Your task to perform on an android device: turn off airplane mode Image 0: 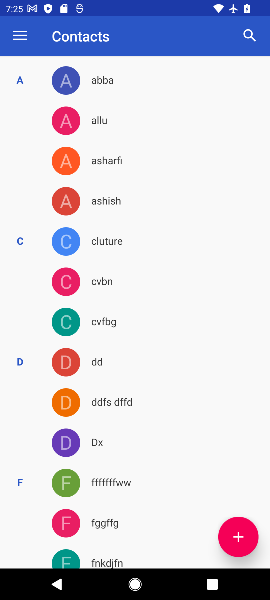
Step 0: press home button
Your task to perform on an android device: turn off airplane mode Image 1: 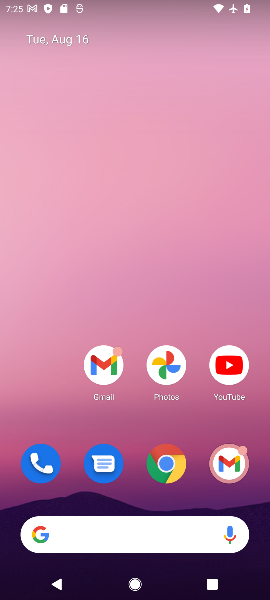
Step 1: drag from (104, 528) to (133, 19)
Your task to perform on an android device: turn off airplane mode Image 2: 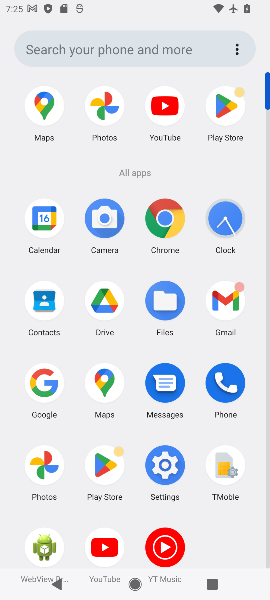
Step 2: click (158, 458)
Your task to perform on an android device: turn off airplane mode Image 3: 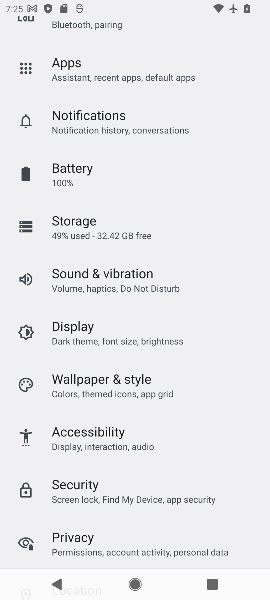
Step 3: drag from (110, 302) to (96, 556)
Your task to perform on an android device: turn off airplane mode Image 4: 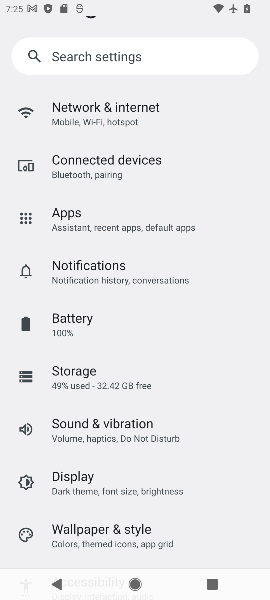
Step 4: click (94, 125)
Your task to perform on an android device: turn off airplane mode Image 5: 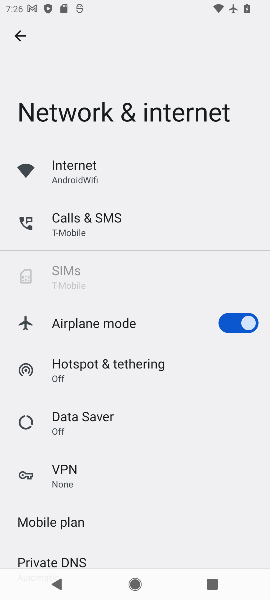
Step 5: click (217, 322)
Your task to perform on an android device: turn off airplane mode Image 6: 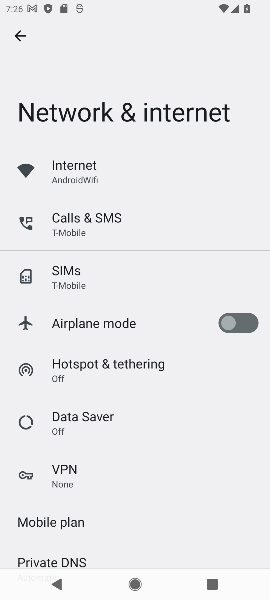
Step 6: task complete